Your task to perform on an android device: turn off data saver in the chrome app Image 0: 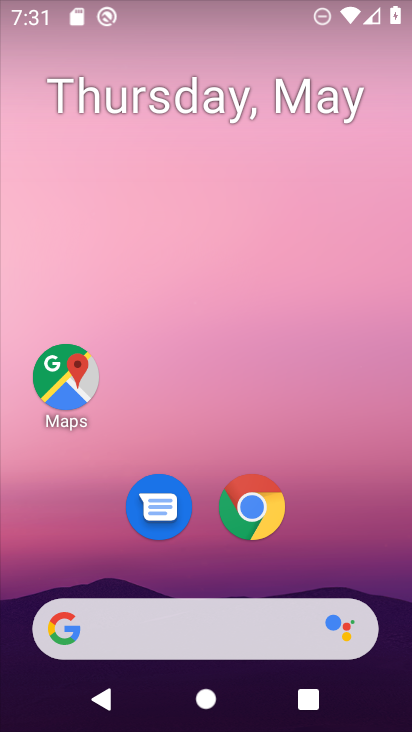
Step 0: click (248, 497)
Your task to perform on an android device: turn off data saver in the chrome app Image 1: 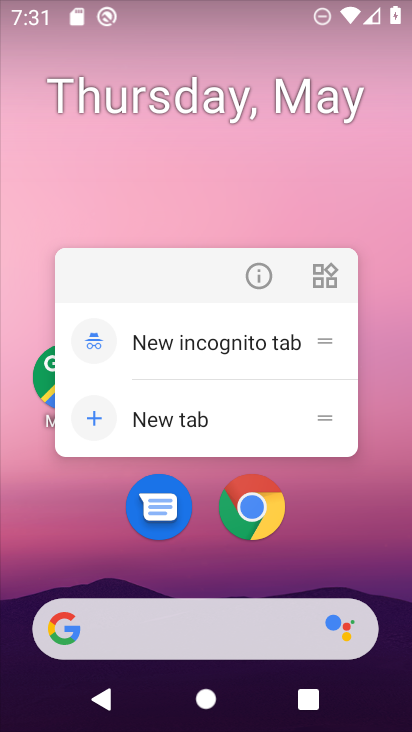
Step 1: click (248, 497)
Your task to perform on an android device: turn off data saver in the chrome app Image 2: 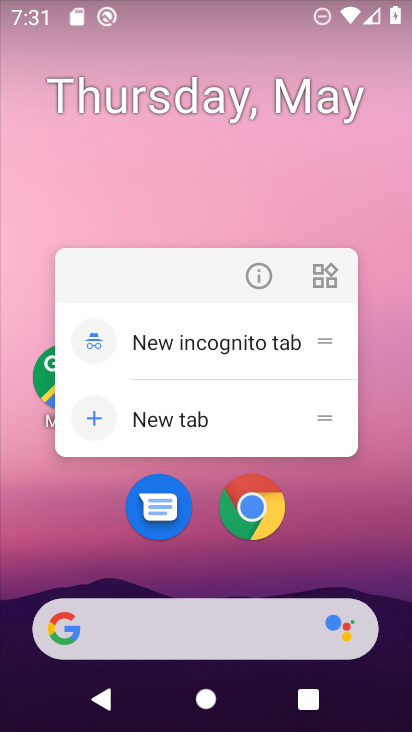
Step 2: click (248, 497)
Your task to perform on an android device: turn off data saver in the chrome app Image 3: 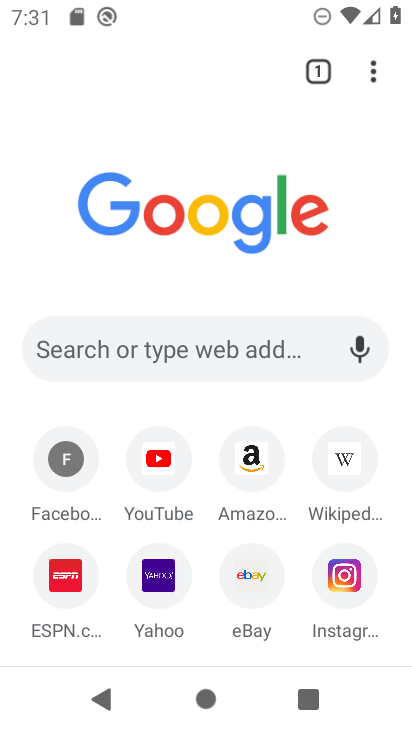
Step 3: drag from (384, 77) to (161, 489)
Your task to perform on an android device: turn off data saver in the chrome app Image 4: 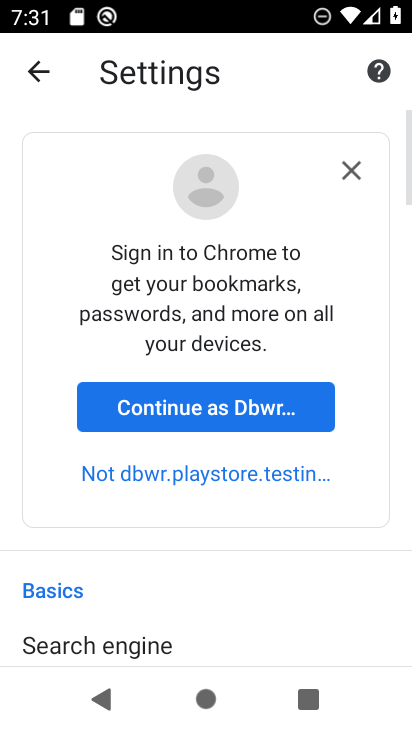
Step 4: drag from (135, 580) to (177, 180)
Your task to perform on an android device: turn off data saver in the chrome app Image 5: 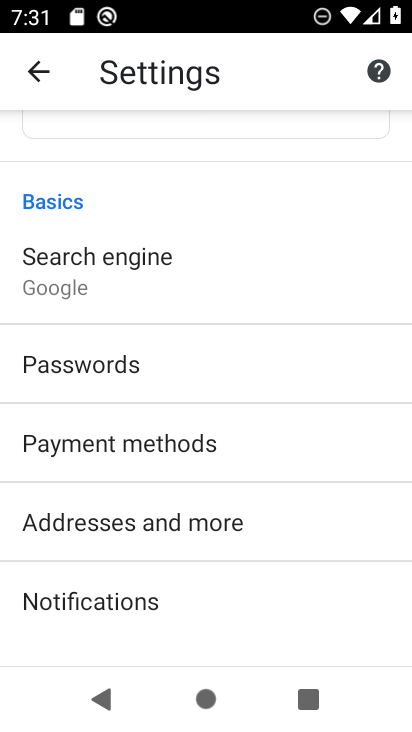
Step 5: drag from (200, 597) to (227, 285)
Your task to perform on an android device: turn off data saver in the chrome app Image 6: 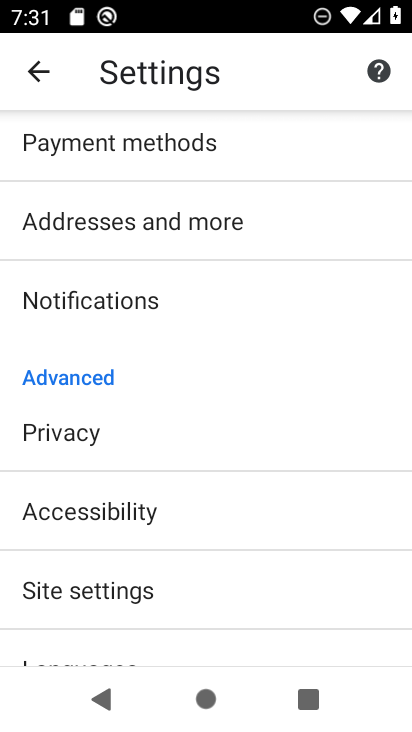
Step 6: drag from (239, 540) to (288, 218)
Your task to perform on an android device: turn off data saver in the chrome app Image 7: 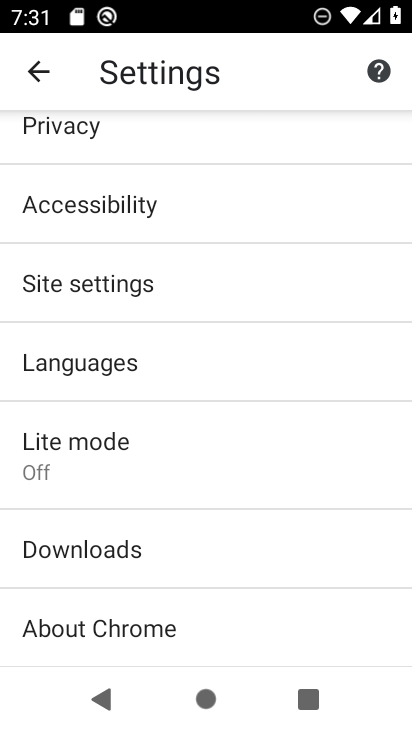
Step 7: click (106, 470)
Your task to perform on an android device: turn off data saver in the chrome app Image 8: 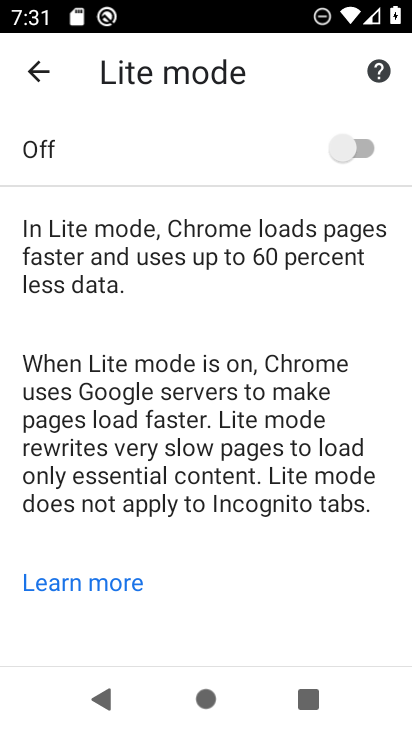
Step 8: task complete